Your task to perform on an android device: Go to settings Image 0: 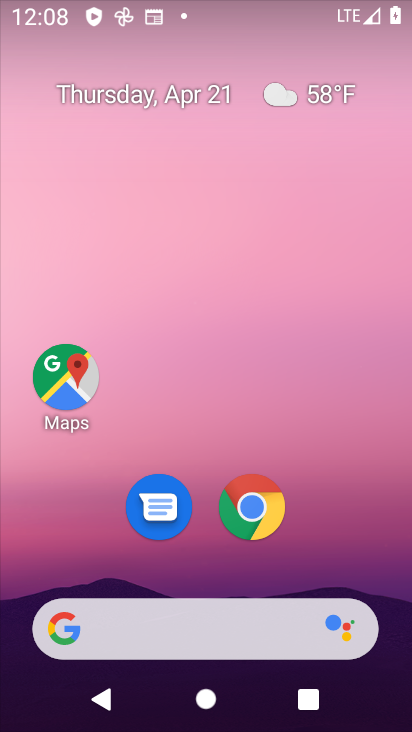
Step 0: drag from (325, 551) to (345, 83)
Your task to perform on an android device: Go to settings Image 1: 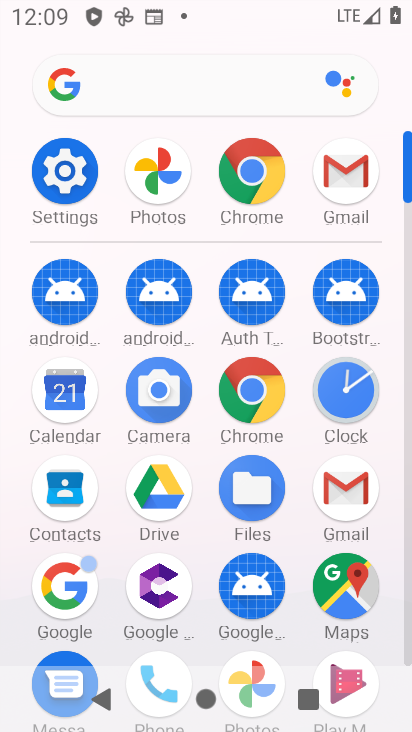
Step 1: click (67, 169)
Your task to perform on an android device: Go to settings Image 2: 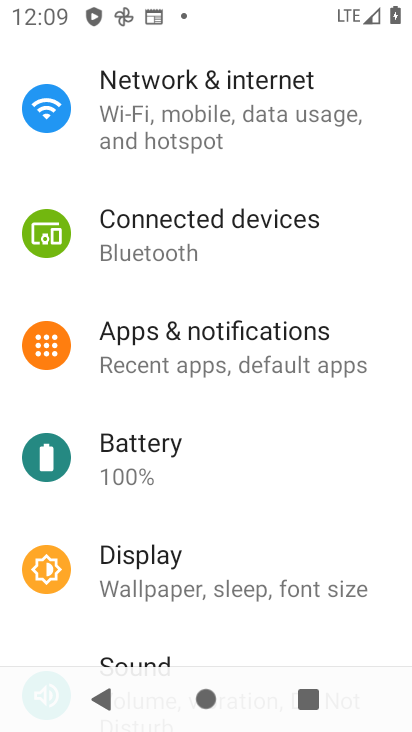
Step 2: task complete